Your task to perform on an android device: change notifications settings Image 0: 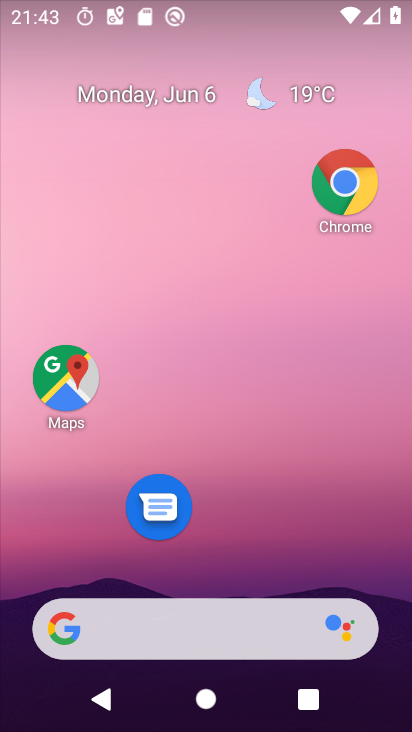
Step 0: press home button
Your task to perform on an android device: change notifications settings Image 1: 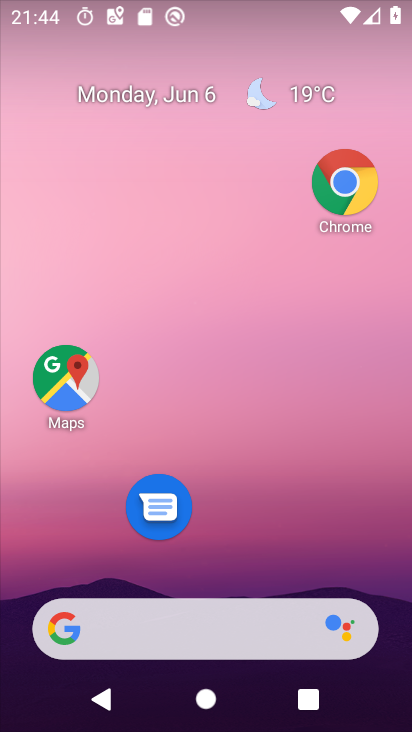
Step 1: drag from (331, 610) to (326, 4)
Your task to perform on an android device: change notifications settings Image 2: 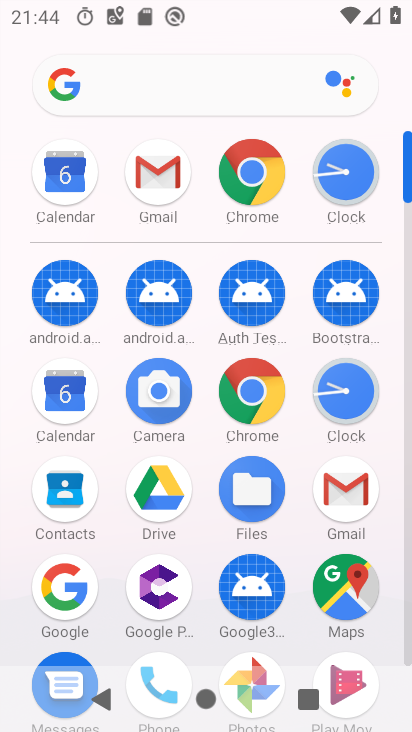
Step 2: drag from (338, 553) to (233, 215)
Your task to perform on an android device: change notifications settings Image 3: 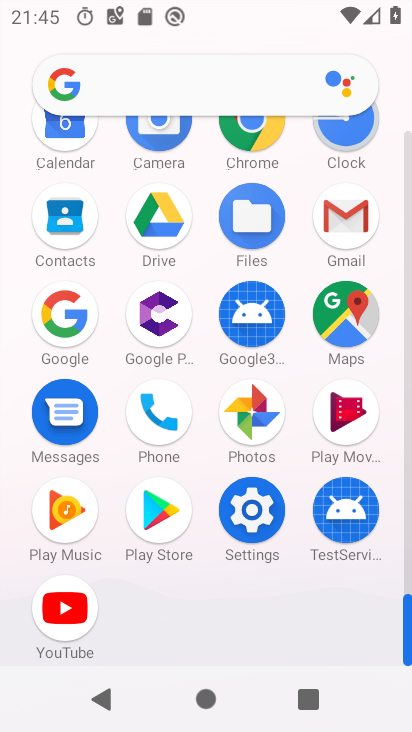
Step 3: click (234, 540)
Your task to perform on an android device: change notifications settings Image 4: 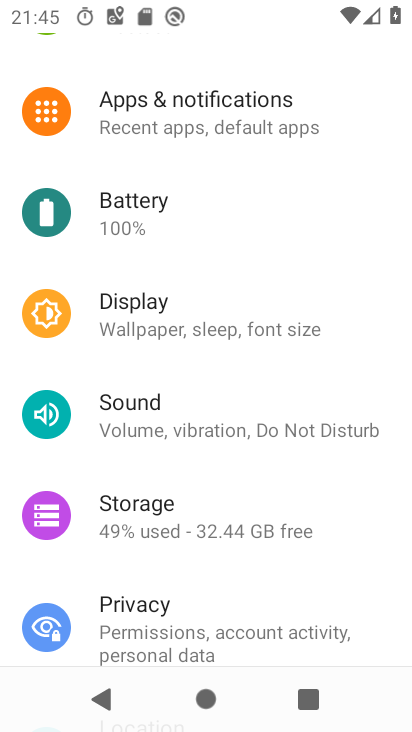
Step 4: click (263, 134)
Your task to perform on an android device: change notifications settings Image 5: 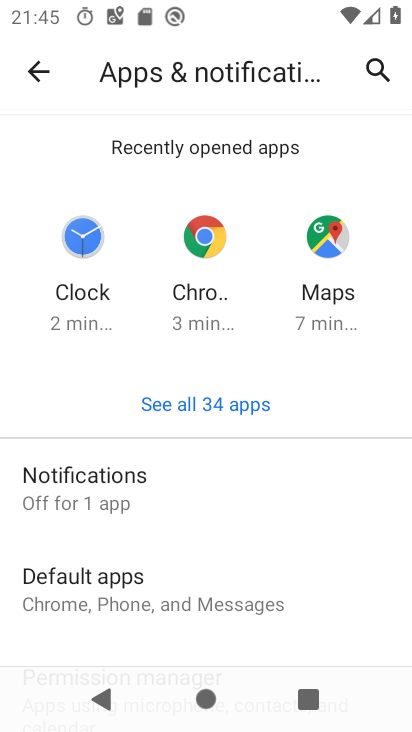
Step 5: click (73, 480)
Your task to perform on an android device: change notifications settings Image 6: 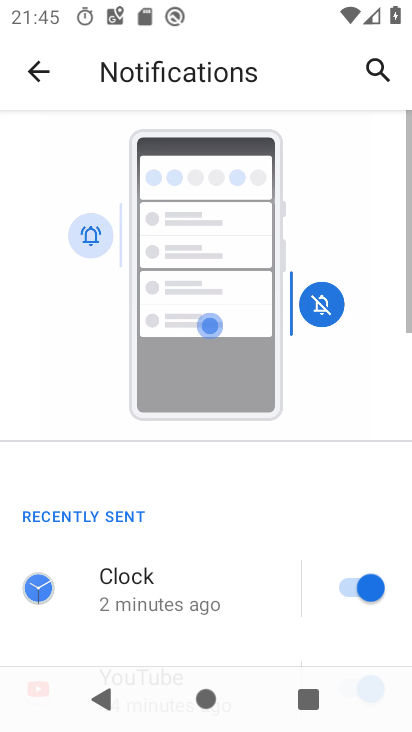
Step 6: drag from (84, 492) to (146, 18)
Your task to perform on an android device: change notifications settings Image 7: 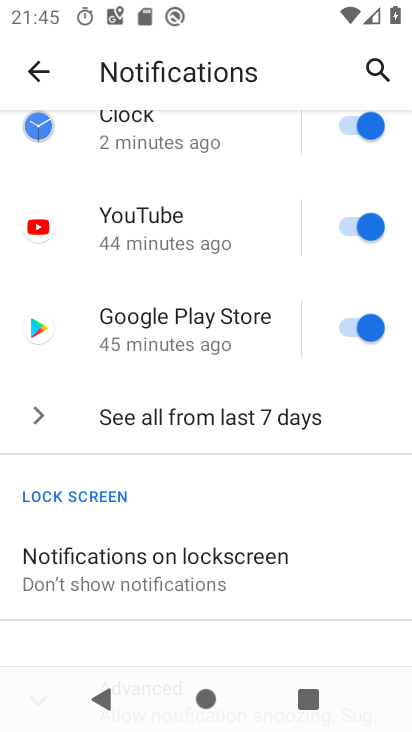
Step 7: drag from (178, 558) to (213, 133)
Your task to perform on an android device: change notifications settings Image 8: 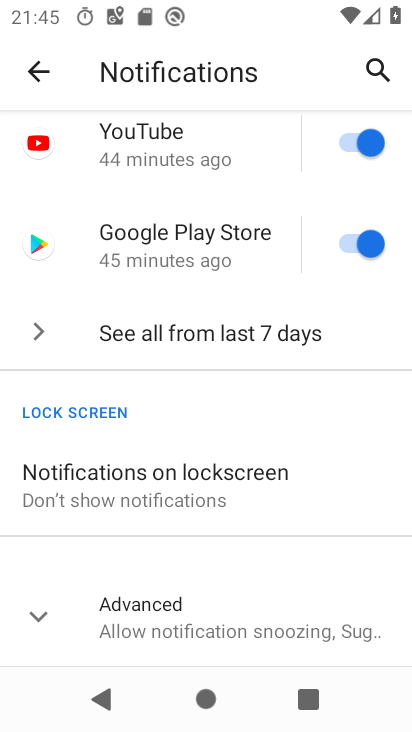
Step 8: click (190, 645)
Your task to perform on an android device: change notifications settings Image 9: 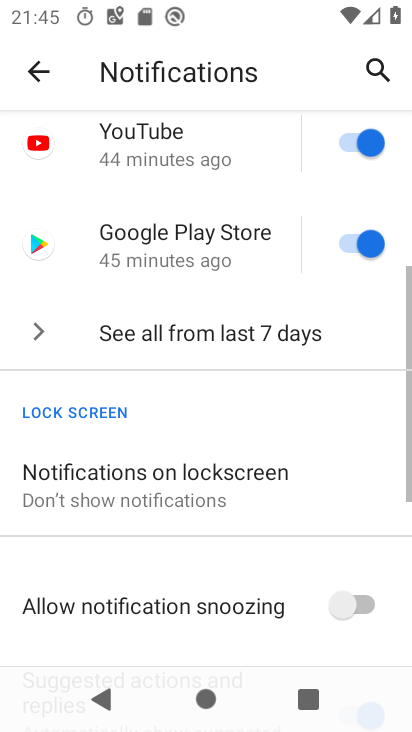
Step 9: drag from (190, 642) to (223, 197)
Your task to perform on an android device: change notifications settings Image 10: 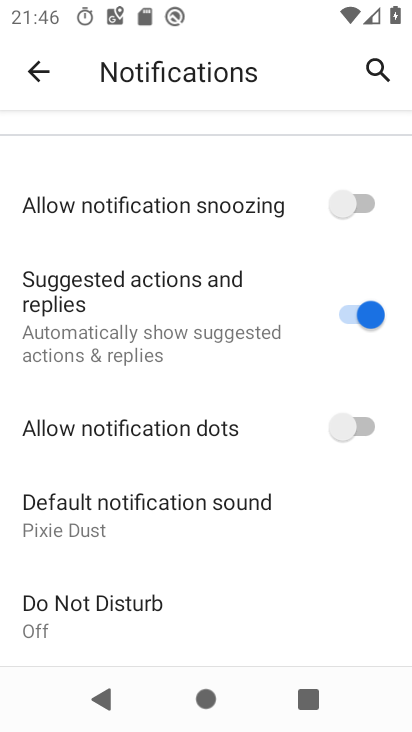
Step 10: click (302, 441)
Your task to perform on an android device: change notifications settings Image 11: 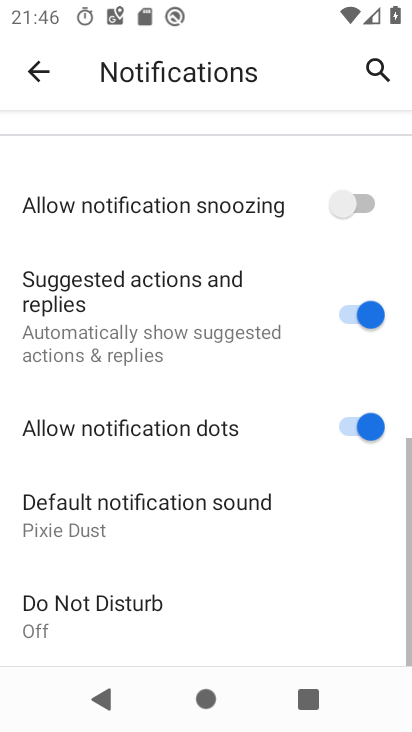
Step 11: click (299, 204)
Your task to perform on an android device: change notifications settings Image 12: 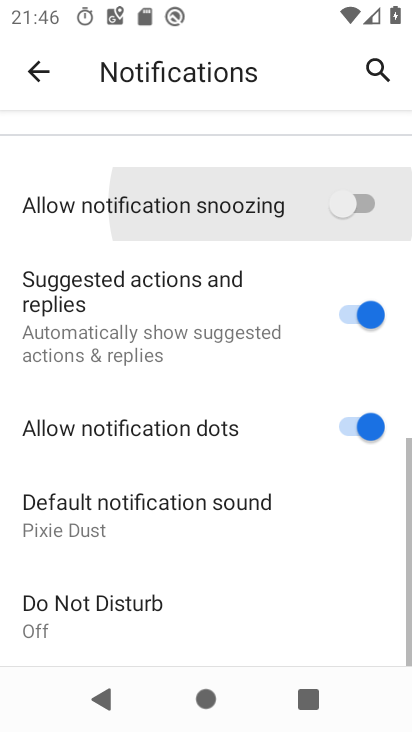
Step 12: click (338, 299)
Your task to perform on an android device: change notifications settings Image 13: 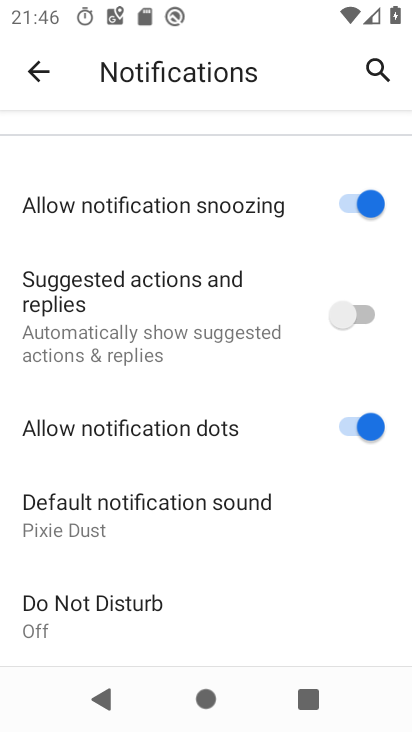
Step 13: task complete